Your task to perform on an android device: toggle notifications settings in the gmail app Image 0: 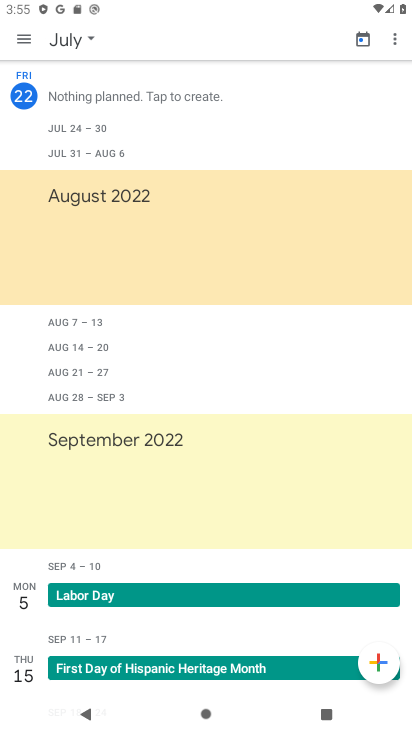
Step 0: task complete